Your task to perform on an android device: change notifications settings Image 0: 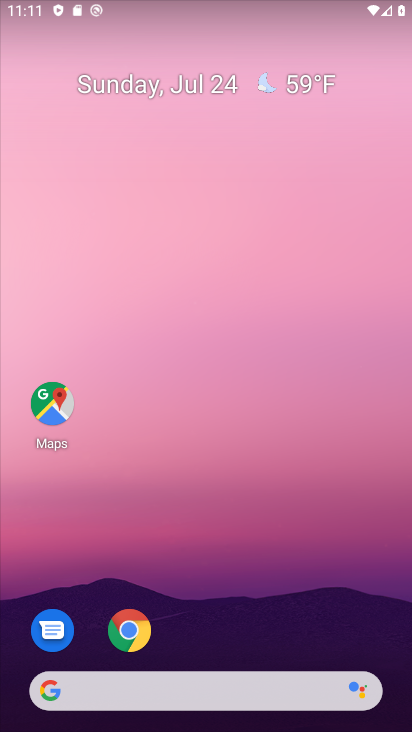
Step 0: press home button
Your task to perform on an android device: change notifications settings Image 1: 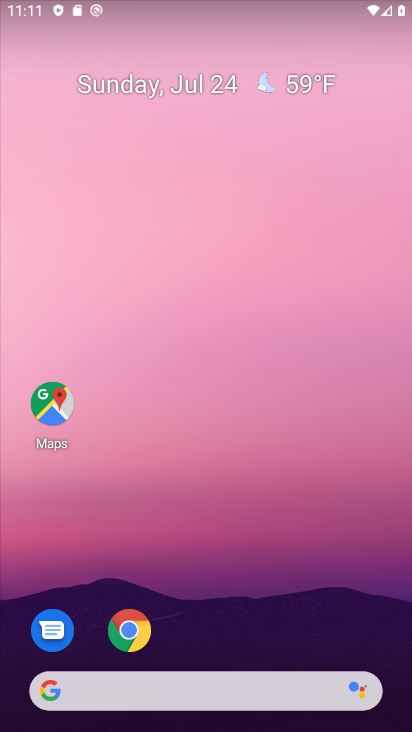
Step 1: drag from (193, 645) to (285, 38)
Your task to perform on an android device: change notifications settings Image 2: 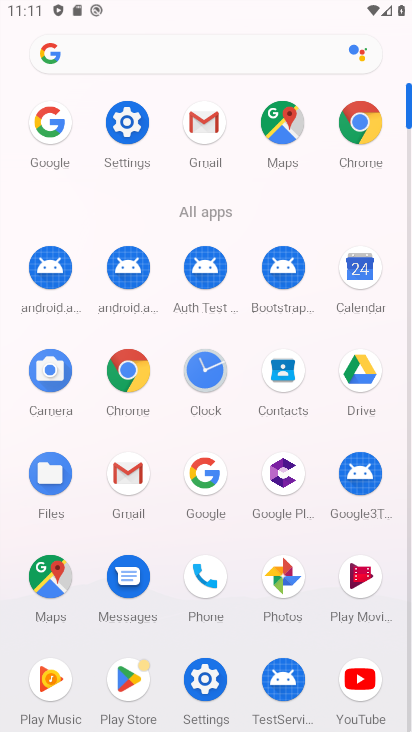
Step 2: click (208, 673)
Your task to perform on an android device: change notifications settings Image 3: 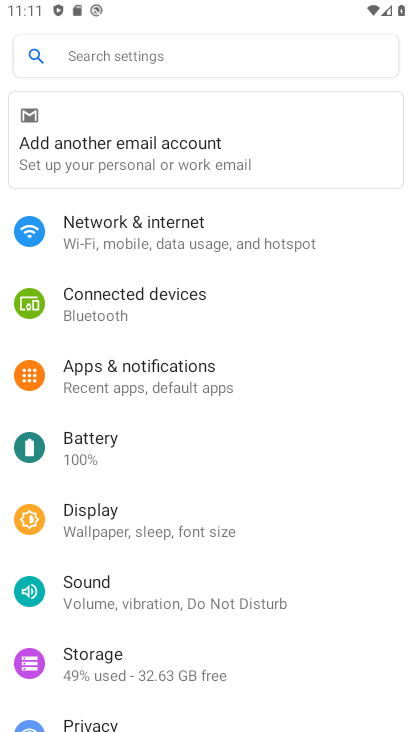
Step 3: click (167, 372)
Your task to perform on an android device: change notifications settings Image 4: 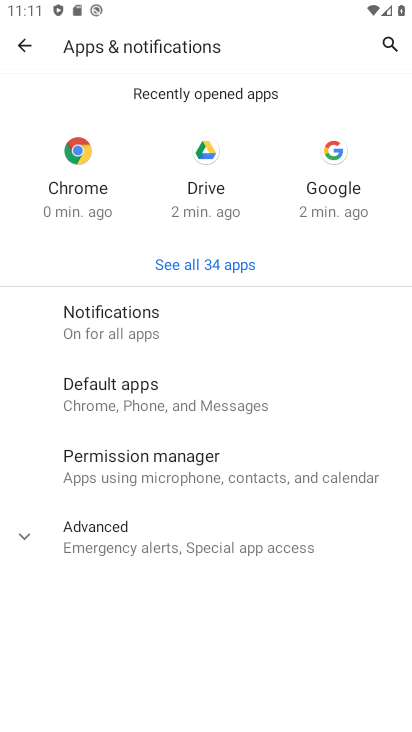
Step 4: click (213, 329)
Your task to perform on an android device: change notifications settings Image 5: 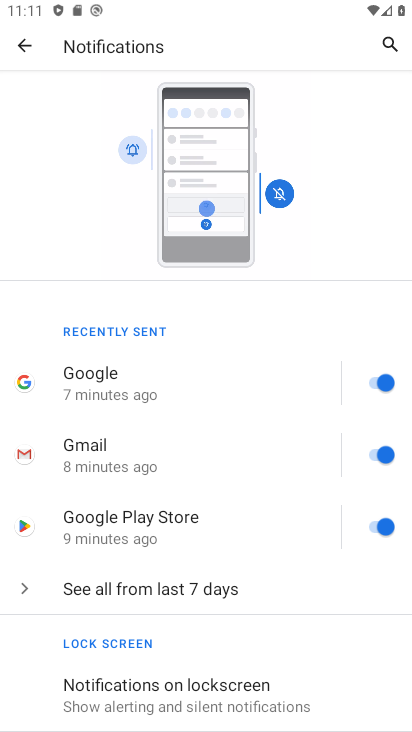
Step 5: click (374, 375)
Your task to perform on an android device: change notifications settings Image 6: 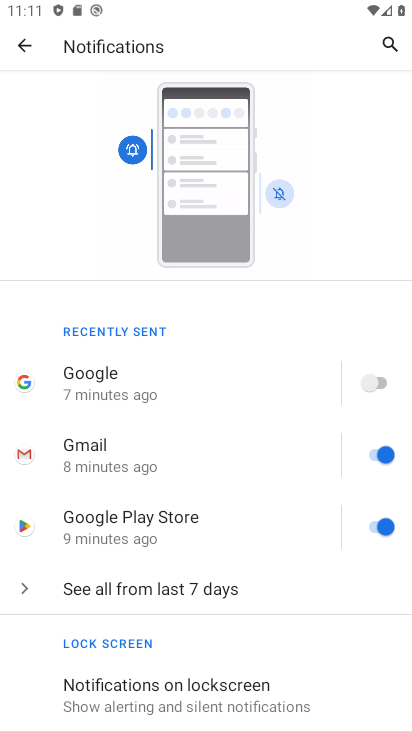
Step 6: click (373, 454)
Your task to perform on an android device: change notifications settings Image 7: 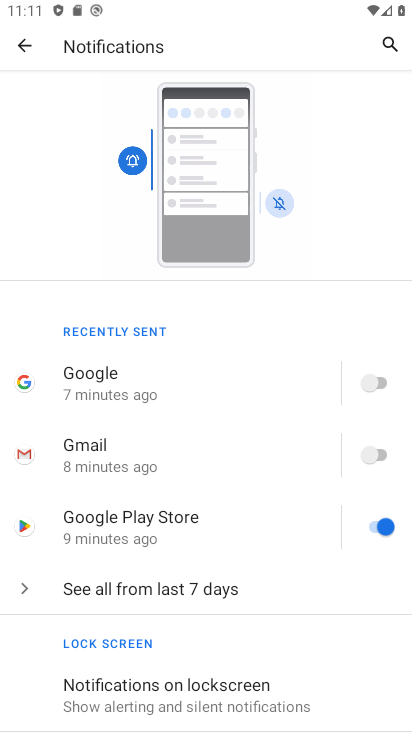
Step 7: click (373, 527)
Your task to perform on an android device: change notifications settings Image 8: 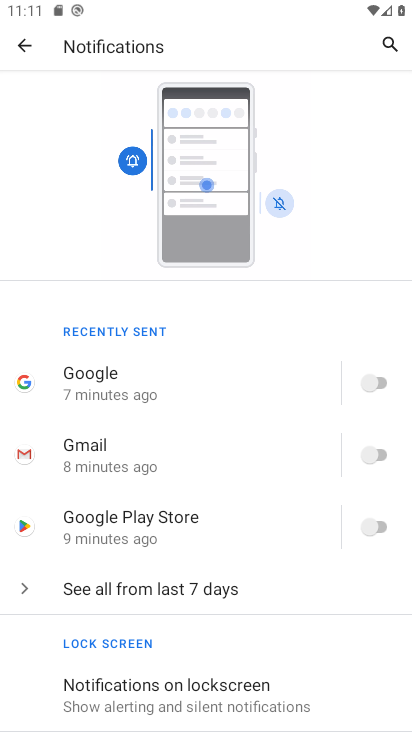
Step 8: drag from (296, 628) to (285, 0)
Your task to perform on an android device: change notifications settings Image 9: 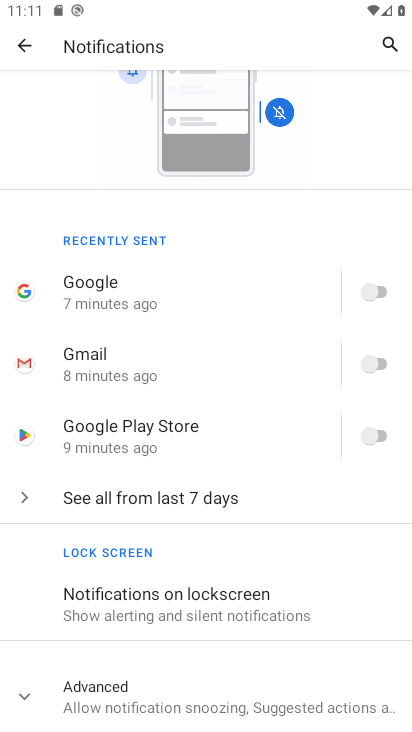
Step 9: click (27, 695)
Your task to perform on an android device: change notifications settings Image 10: 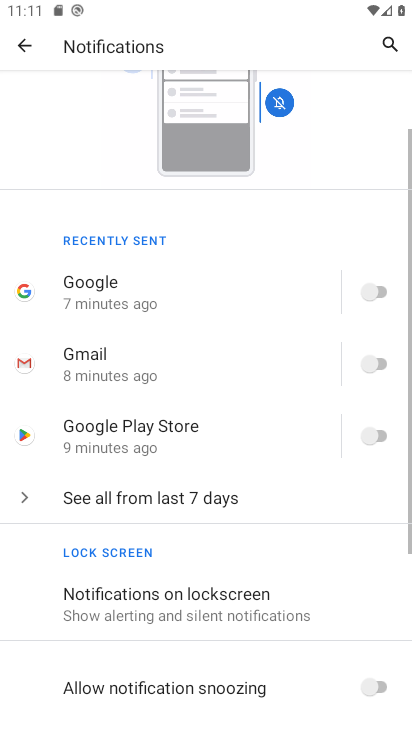
Step 10: drag from (179, 684) to (215, 123)
Your task to perform on an android device: change notifications settings Image 11: 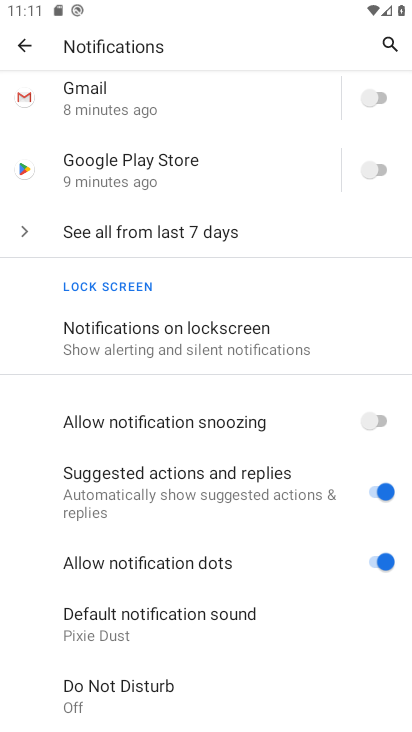
Step 11: click (381, 481)
Your task to perform on an android device: change notifications settings Image 12: 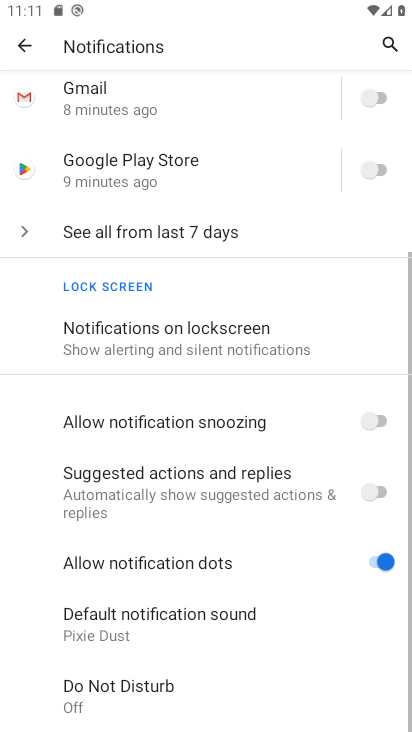
Step 12: click (373, 553)
Your task to perform on an android device: change notifications settings Image 13: 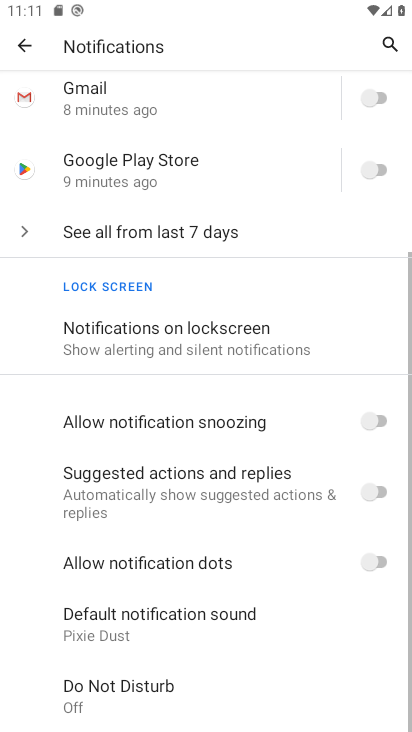
Step 13: task complete